Your task to perform on an android device: Open display settings Image 0: 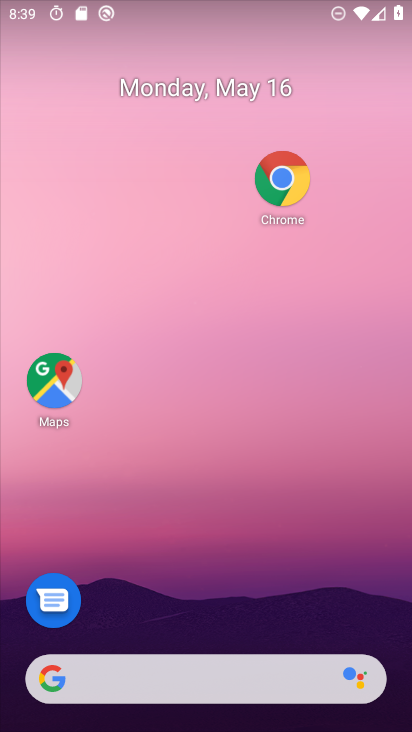
Step 0: drag from (218, 663) to (319, 0)
Your task to perform on an android device: Open display settings Image 1: 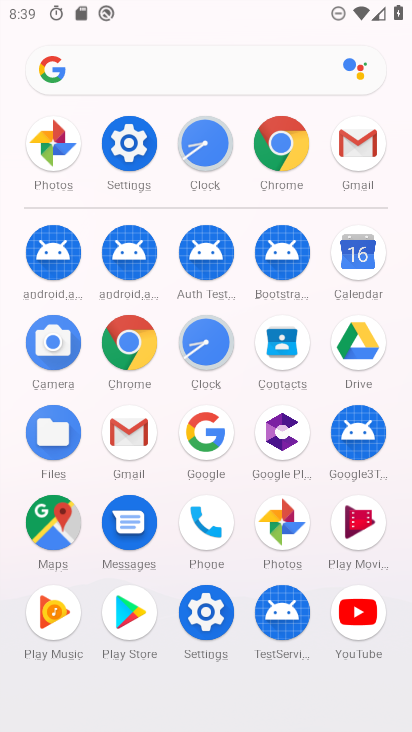
Step 1: click (137, 147)
Your task to perform on an android device: Open display settings Image 2: 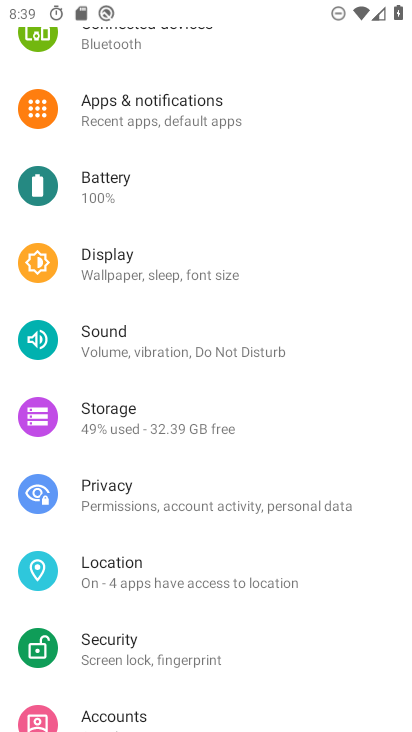
Step 2: click (159, 265)
Your task to perform on an android device: Open display settings Image 3: 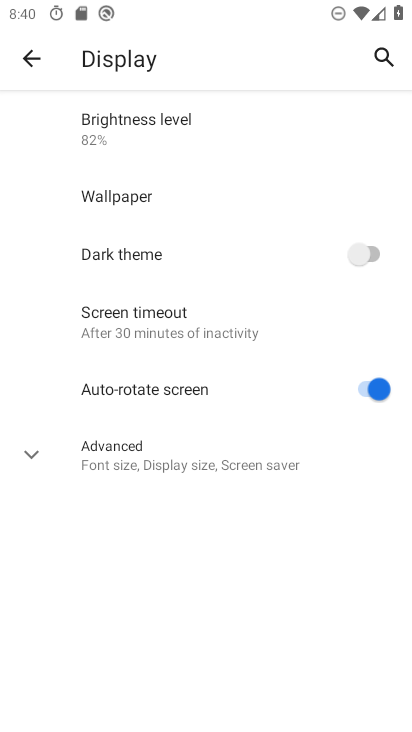
Step 3: task complete